Your task to perform on an android device: turn on wifi Image 0: 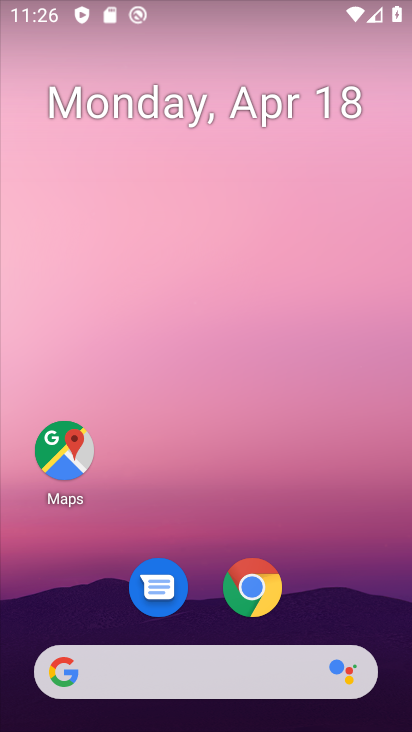
Step 0: drag from (197, 404) to (220, 149)
Your task to perform on an android device: turn on wifi Image 1: 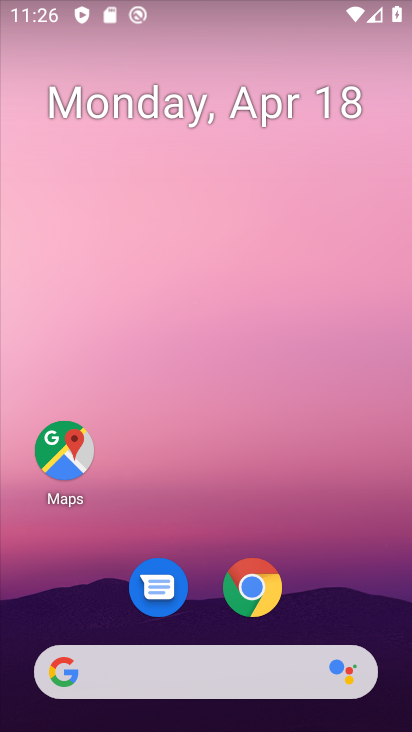
Step 1: drag from (201, 525) to (252, 100)
Your task to perform on an android device: turn on wifi Image 2: 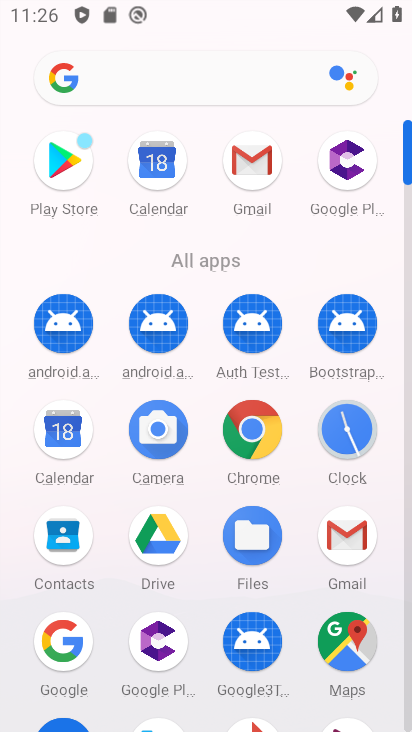
Step 2: drag from (286, 526) to (331, 286)
Your task to perform on an android device: turn on wifi Image 3: 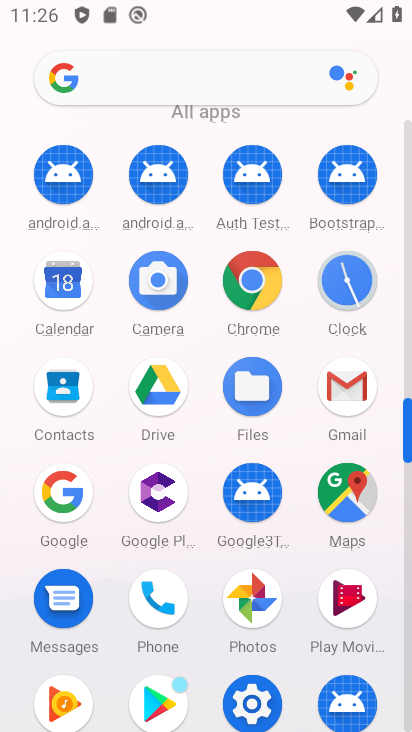
Step 3: click (247, 699)
Your task to perform on an android device: turn on wifi Image 4: 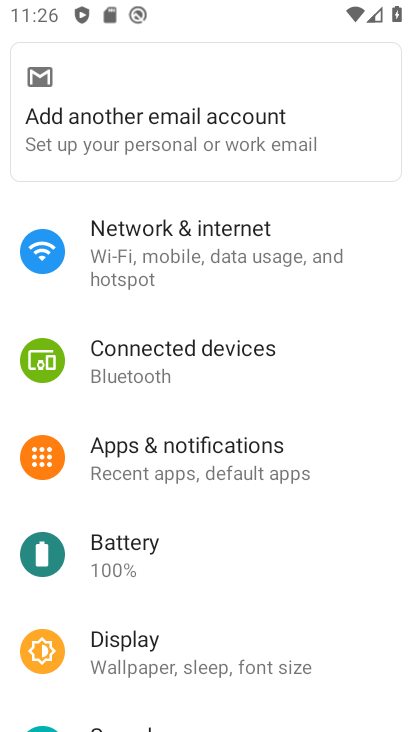
Step 4: drag from (169, 610) to (220, 329)
Your task to perform on an android device: turn on wifi Image 5: 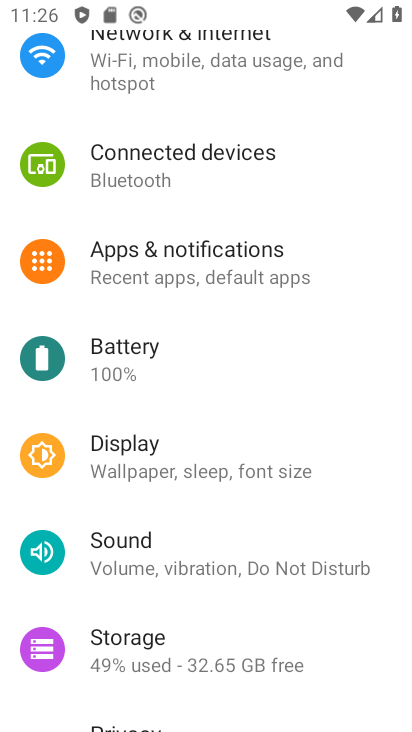
Step 5: drag from (182, 178) to (166, 362)
Your task to perform on an android device: turn on wifi Image 6: 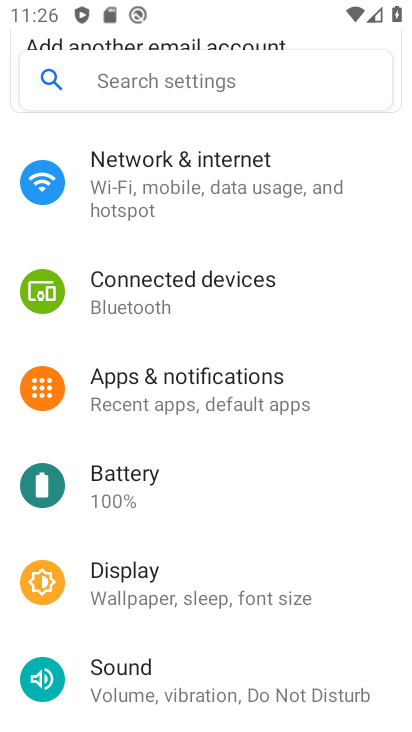
Step 6: click (183, 202)
Your task to perform on an android device: turn on wifi Image 7: 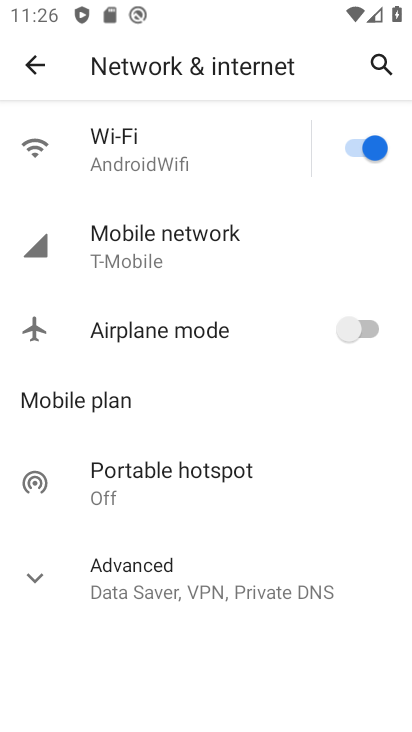
Step 7: click (156, 171)
Your task to perform on an android device: turn on wifi Image 8: 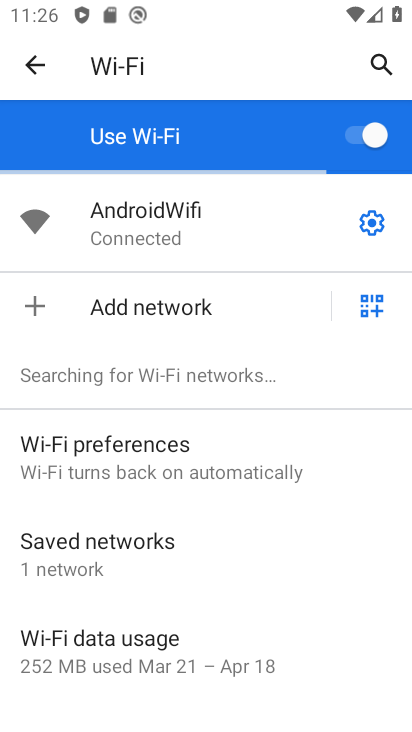
Step 8: task complete